Your task to perform on an android device: Open Google Chrome Image 0: 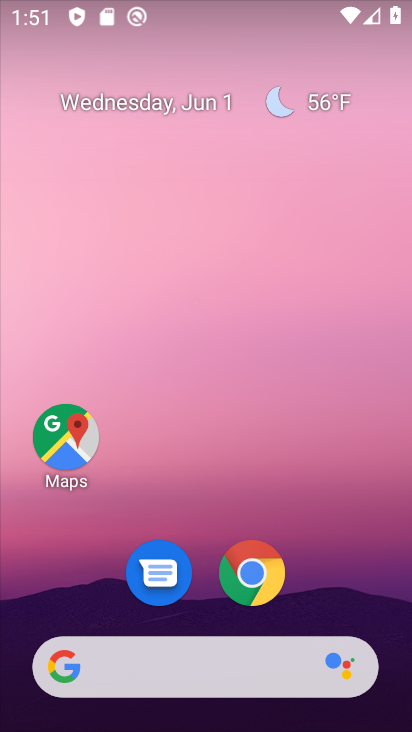
Step 0: drag from (222, 630) to (199, 179)
Your task to perform on an android device: Open Google Chrome Image 1: 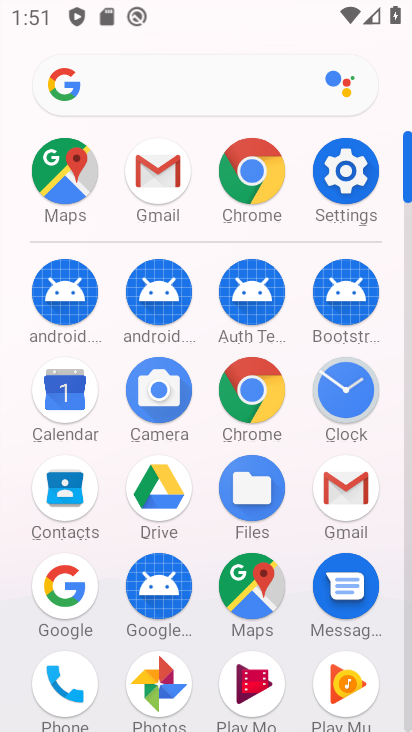
Step 1: click (240, 392)
Your task to perform on an android device: Open Google Chrome Image 2: 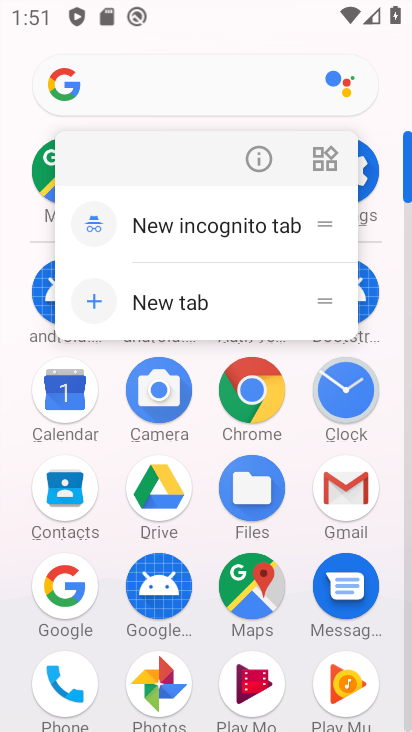
Step 2: click (274, 151)
Your task to perform on an android device: Open Google Chrome Image 3: 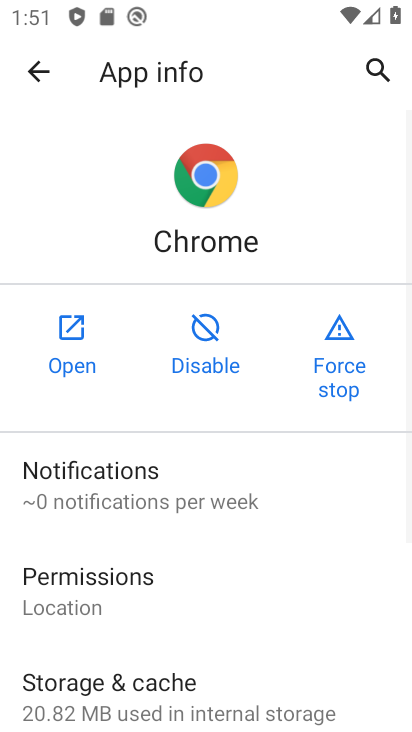
Step 3: click (69, 394)
Your task to perform on an android device: Open Google Chrome Image 4: 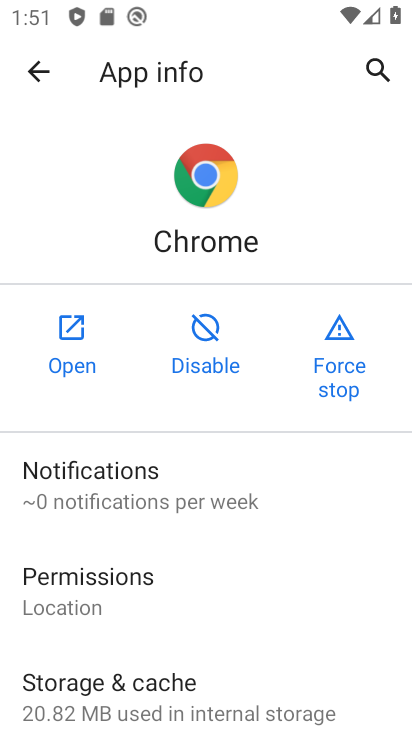
Step 4: click (69, 392)
Your task to perform on an android device: Open Google Chrome Image 5: 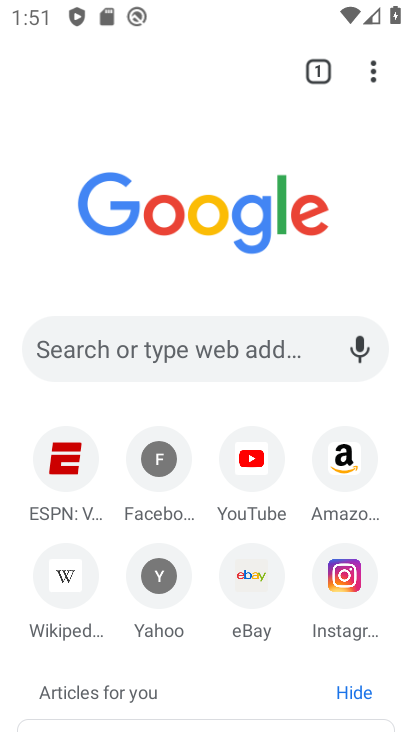
Step 5: task complete